Your task to perform on an android device: Play the last video I watched on Youtube Image 0: 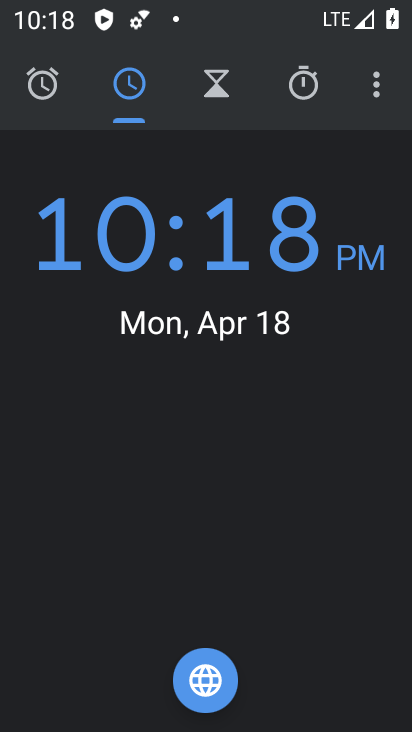
Step 0: press home button
Your task to perform on an android device: Play the last video I watched on Youtube Image 1: 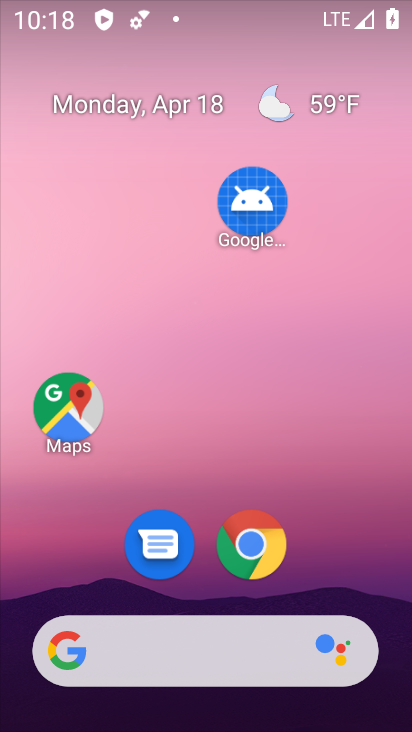
Step 1: drag from (318, 468) to (338, 221)
Your task to perform on an android device: Play the last video I watched on Youtube Image 2: 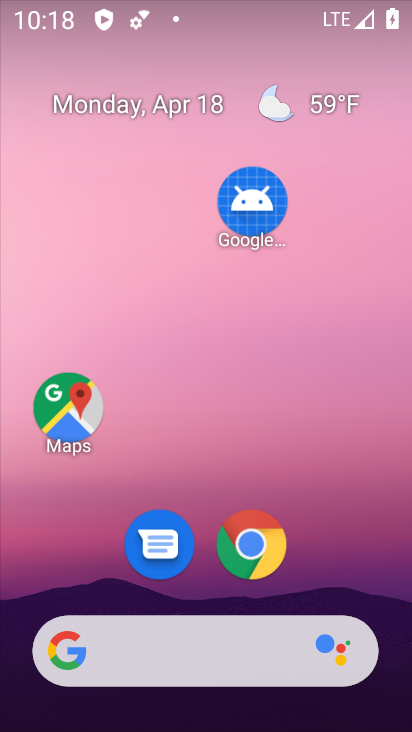
Step 2: drag from (306, 524) to (303, 312)
Your task to perform on an android device: Play the last video I watched on Youtube Image 3: 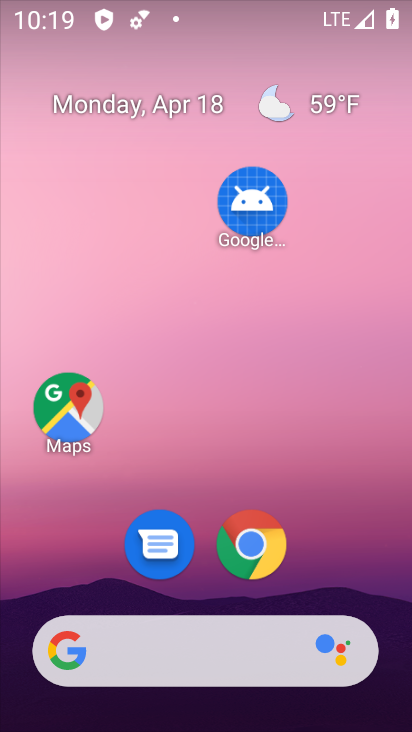
Step 3: click (294, 257)
Your task to perform on an android device: Play the last video I watched on Youtube Image 4: 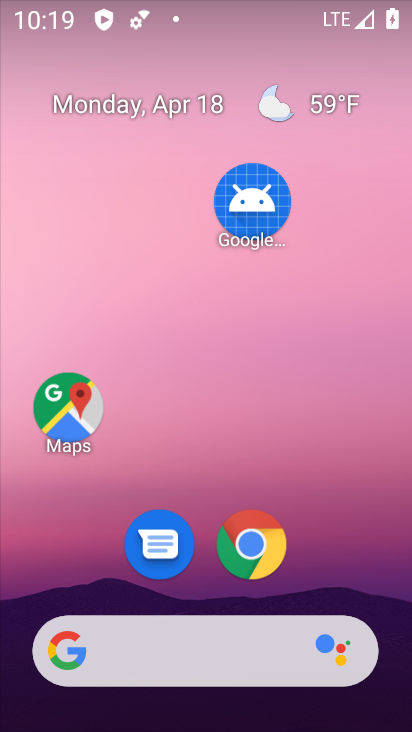
Step 4: drag from (285, 417) to (293, 235)
Your task to perform on an android device: Play the last video I watched on Youtube Image 5: 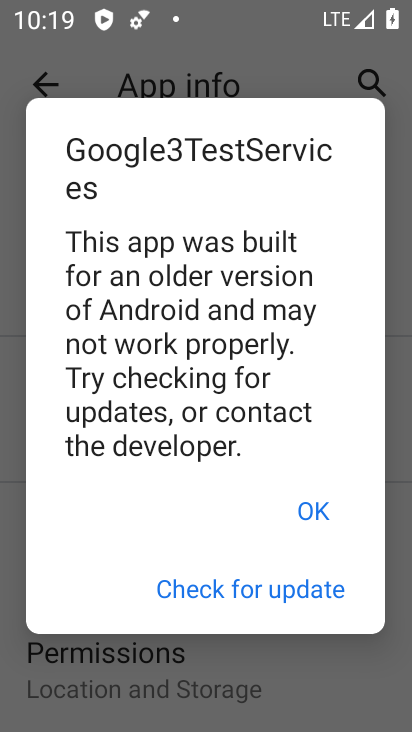
Step 5: click (327, 498)
Your task to perform on an android device: Play the last video I watched on Youtube Image 6: 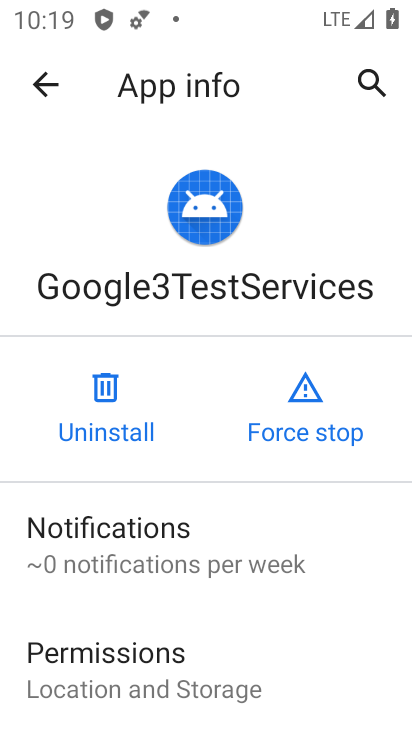
Step 6: click (44, 70)
Your task to perform on an android device: Play the last video I watched on Youtube Image 7: 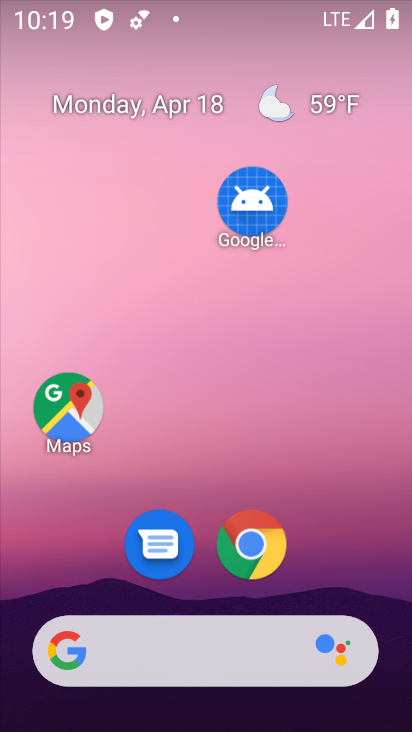
Step 7: drag from (317, 589) to (329, 95)
Your task to perform on an android device: Play the last video I watched on Youtube Image 8: 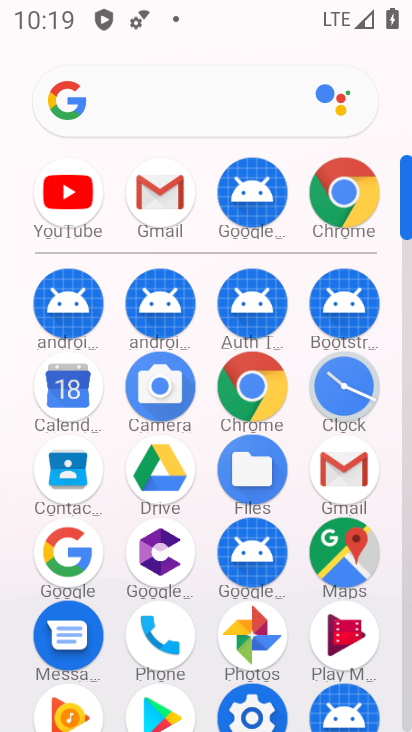
Step 8: drag from (237, 587) to (300, 151)
Your task to perform on an android device: Play the last video I watched on Youtube Image 9: 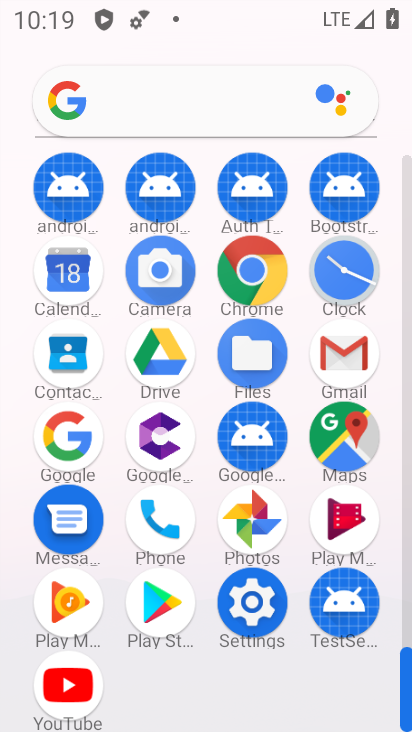
Step 9: click (64, 670)
Your task to perform on an android device: Play the last video I watched on Youtube Image 10: 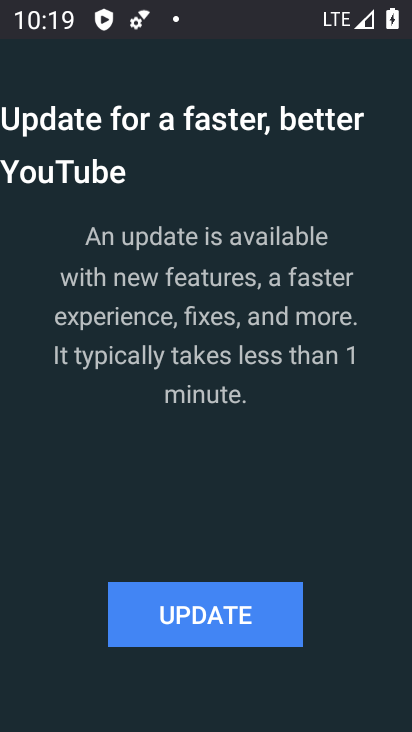
Step 10: click (196, 587)
Your task to perform on an android device: Play the last video I watched on Youtube Image 11: 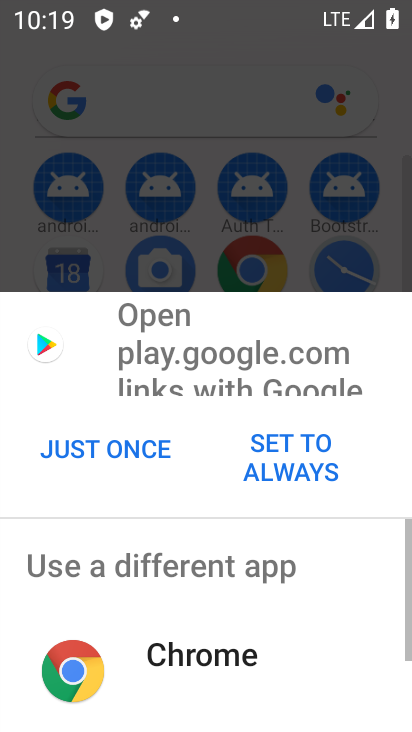
Step 11: click (250, 456)
Your task to perform on an android device: Play the last video I watched on Youtube Image 12: 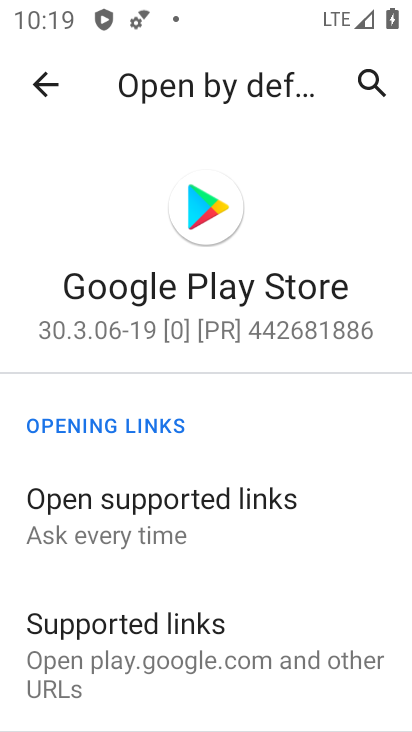
Step 12: click (48, 67)
Your task to perform on an android device: Play the last video I watched on Youtube Image 13: 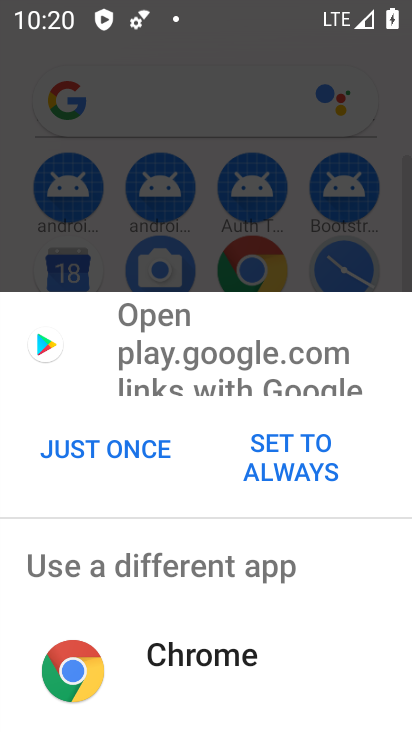
Step 13: press back button
Your task to perform on an android device: Play the last video I watched on Youtube Image 14: 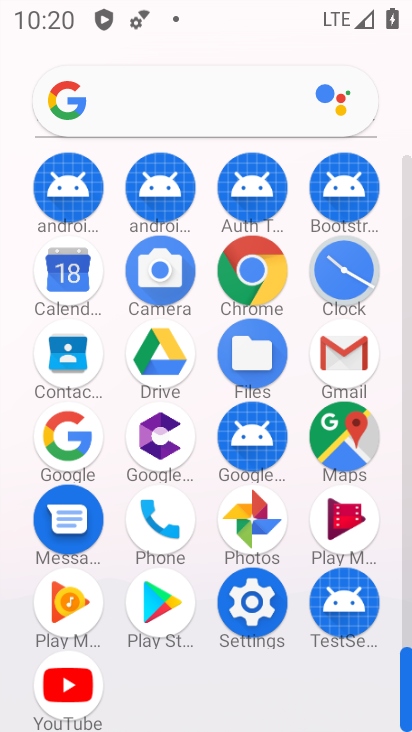
Step 14: click (73, 683)
Your task to perform on an android device: Play the last video I watched on Youtube Image 15: 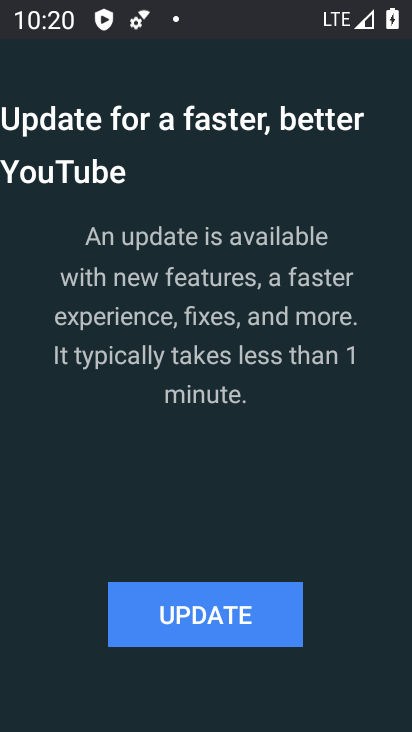
Step 15: task complete